Your task to perform on an android device: change notifications settings Image 0: 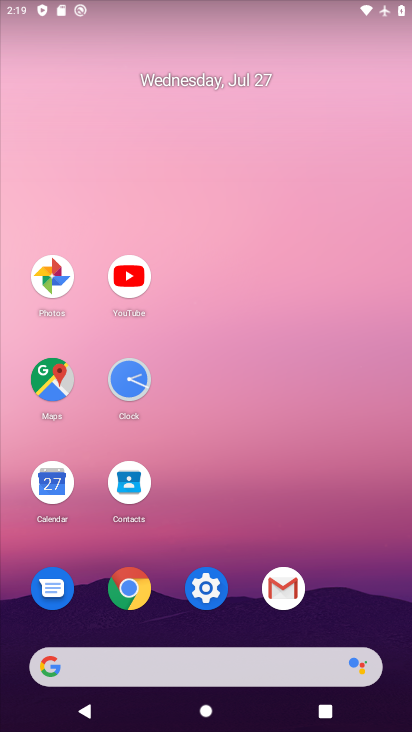
Step 0: click (208, 596)
Your task to perform on an android device: change notifications settings Image 1: 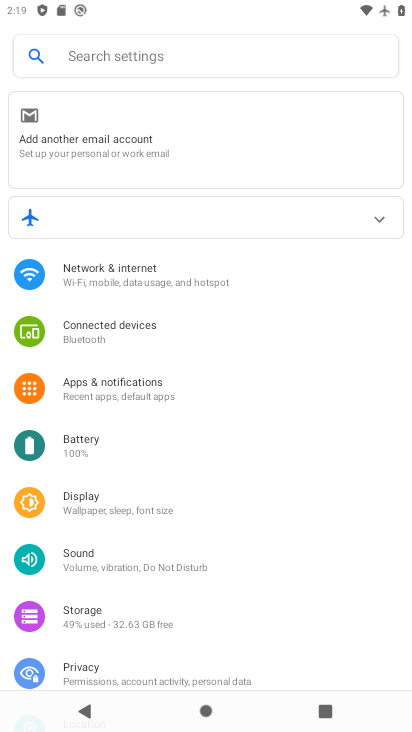
Step 1: click (111, 383)
Your task to perform on an android device: change notifications settings Image 2: 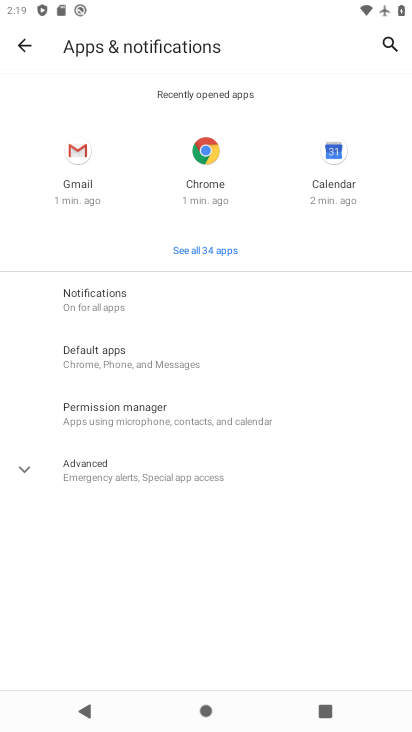
Step 2: click (108, 292)
Your task to perform on an android device: change notifications settings Image 3: 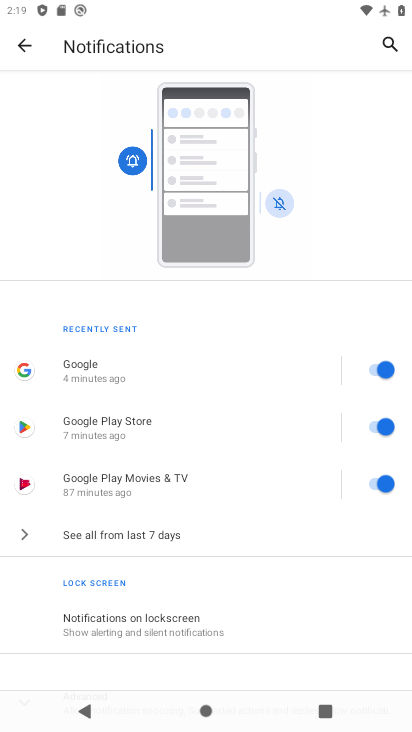
Step 3: click (116, 523)
Your task to perform on an android device: change notifications settings Image 4: 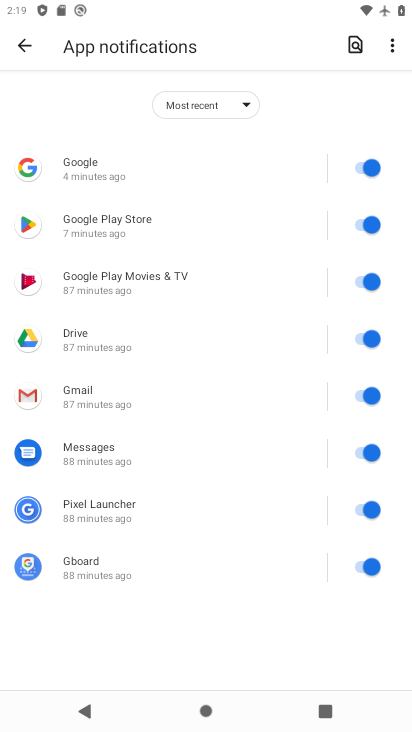
Step 4: click (241, 105)
Your task to perform on an android device: change notifications settings Image 5: 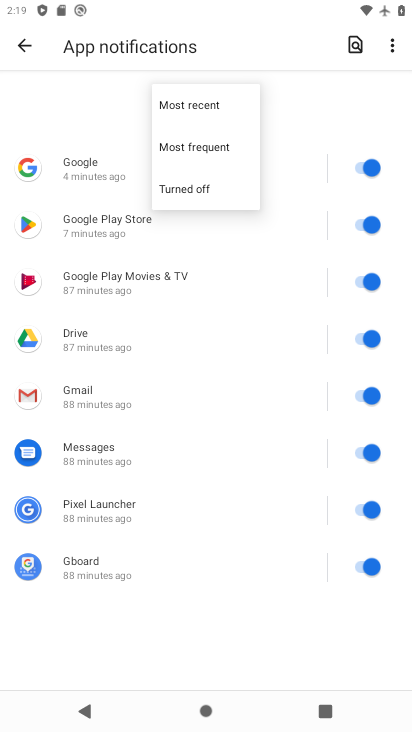
Step 5: click (192, 182)
Your task to perform on an android device: change notifications settings Image 6: 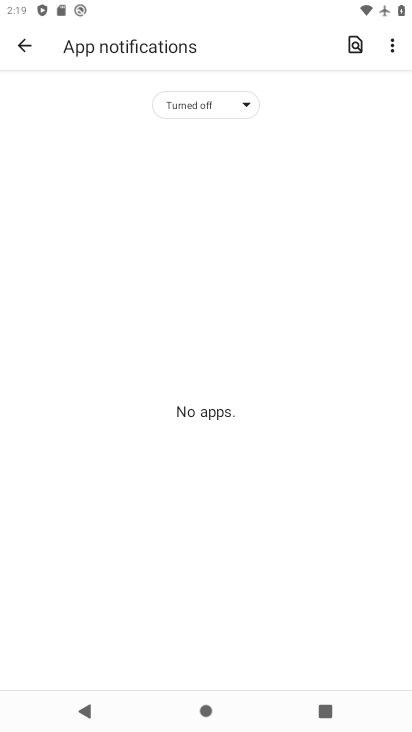
Step 6: task complete